Your task to perform on an android device: visit the assistant section in the google photos Image 0: 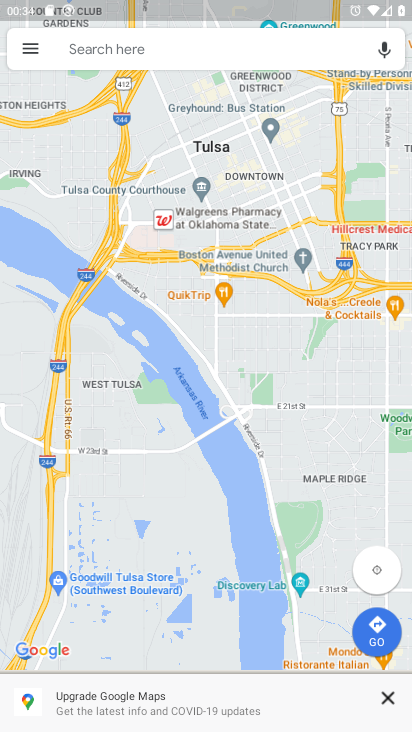
Step 0: press home button
Your task to perform on an android device: visit the assistant section in the google photos Image 1: 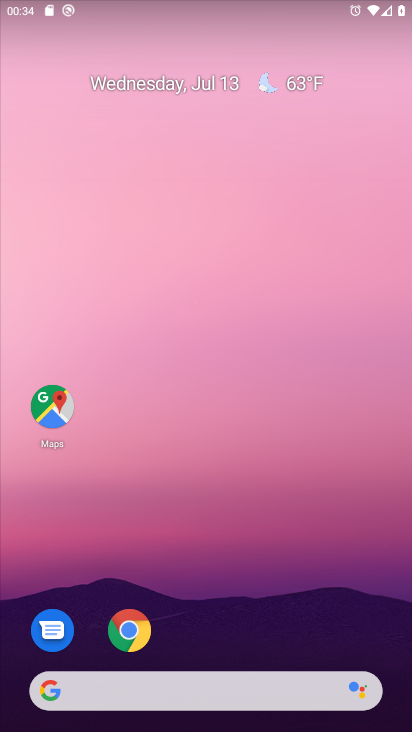
Step 1: drag from (240, 675) to (275, 164)
Your task to perform on an android device: visit the assistant section in the google photos Image 2: 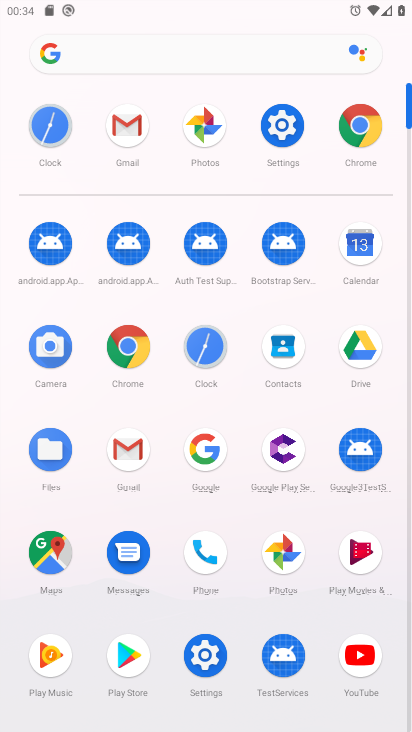
Step 2: click (280, 548)
Your task to perform on an android device: visit the assistant section in the google photos Image 3: 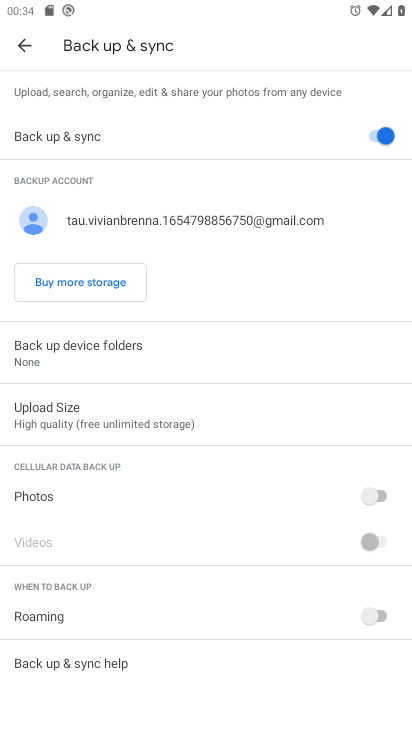
Step 3: click (25, 46)
Your task to perform on an android device: visit the assistant section in the google photos Image 4: 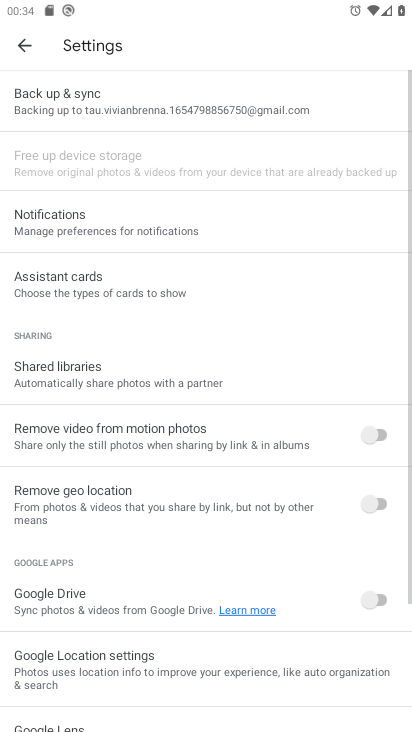
Step 4: click (25, 46)
Your task to perform on an android device: visit the assistant section in the google photos Image 5: 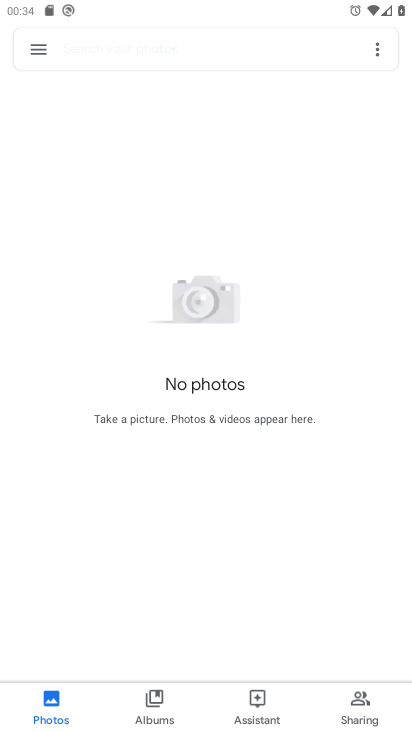
Step 5: click (256, 724)
Your task to perform on an android device: visit the assistant section in the google photos Image 6: 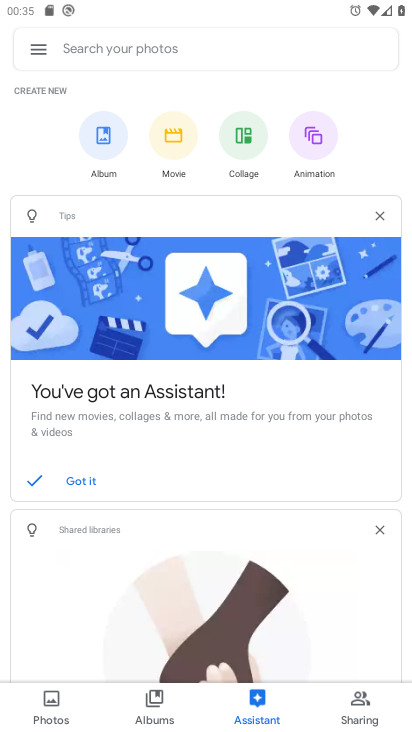
Step 6: task complete